Your task to perform on an android device: Go to privacy settings Image 0: 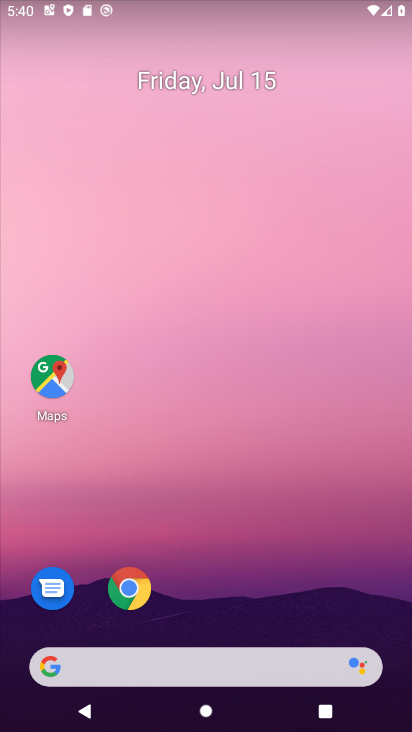
Step 0: drag from (273, 677) to (227, 1)
Your task to perform on an android device: Go to privacy settings Image 1: 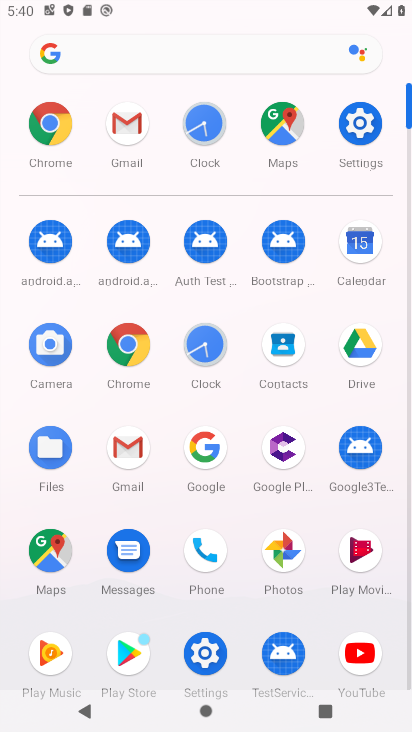
Step 1: click (356, 128)
Your task to perform on an android device: Go to privacy settings Image 2: 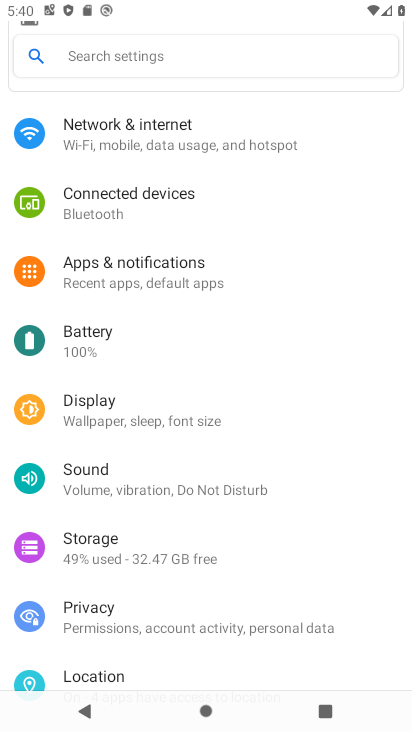
Step 2: click (123, 634)
Your task to perform on an android device: Go to privacy settings Image 3: 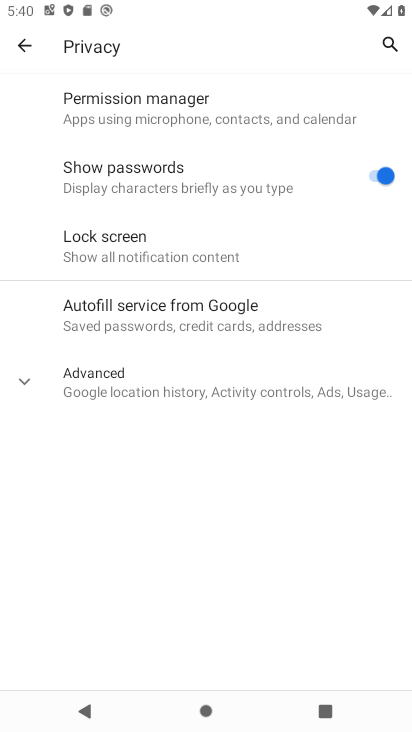
Step 3: task complete